Your task to perform on an android device: toggle location history Image 0: 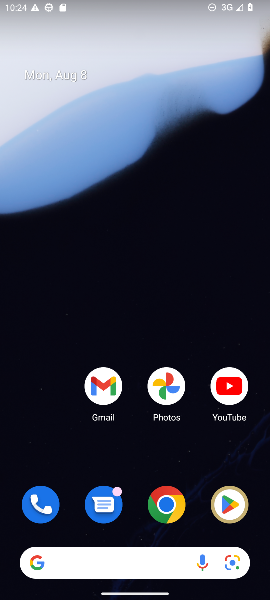
Step 0: drag from (142, 464) to (185, 11)
Your task to perform on an android device: toggle location history Image 1: 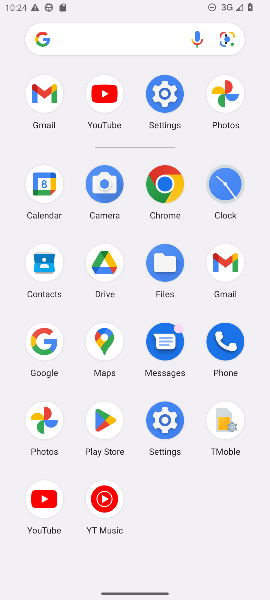
Step 1: click (167, 420)
Your task to perform on an android device: toggle location history Image 2: 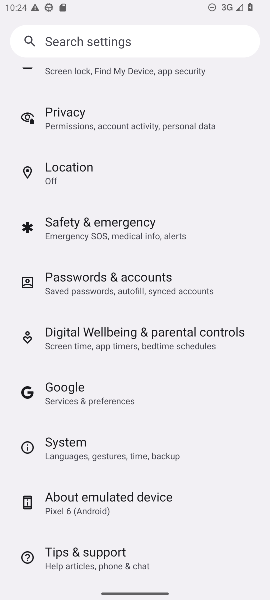
Step 2: click (72, 168)
Your task to perform on an android device: toggle location history Image 3: 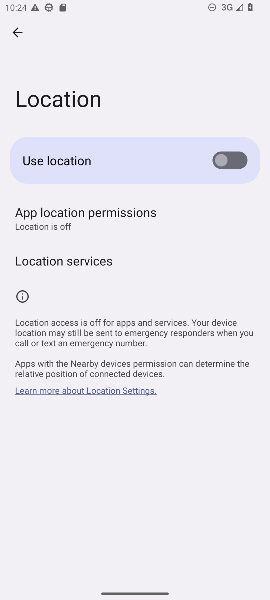
Step 3: click (92, 260)
Your task to perform on an android device: toggle location history Image 4: 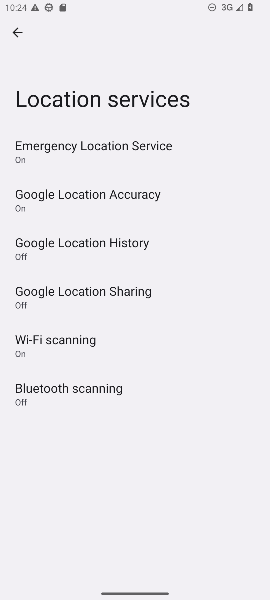
Step 4: click (85, 245)
Your task to perform on an android device: toggle location history Image 5: 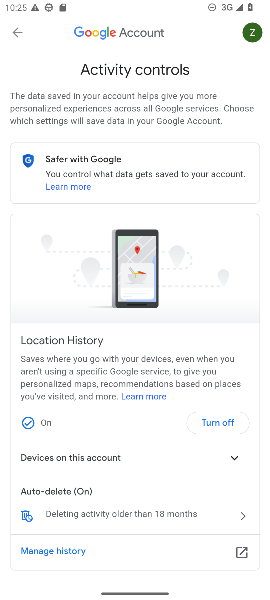
Step 5: click (216, 423)
Your task to perform on an android device: toggle location history Image 6: 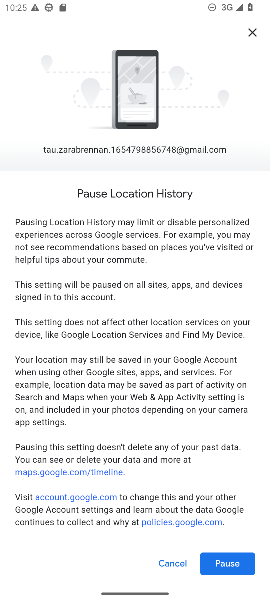
Step 6: click (224, 573)
Your task to perform on an android device: toggle location history Image 7: 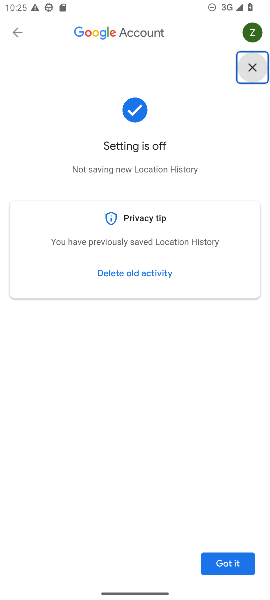
Step 7: click (239, 560)
Your task to perform on an android device: toggle location history Image 8: 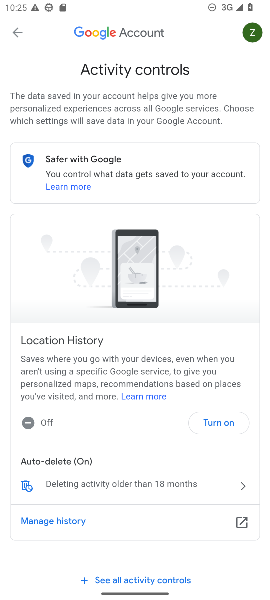
Step 8: task complete